Your task to perform on an android device: Open calendar and show me the fourth week of next month Image 0: 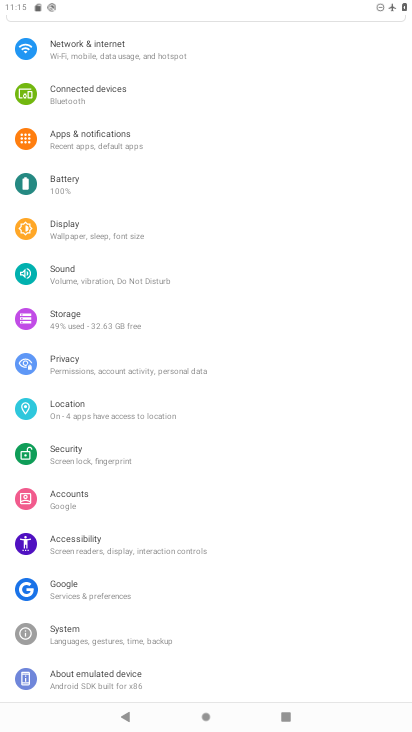
Step 0: drag from (212, 178) to (205, 496)
Your task to perform on an android device: Open calendar and show me the fourth week of next month Image 1: 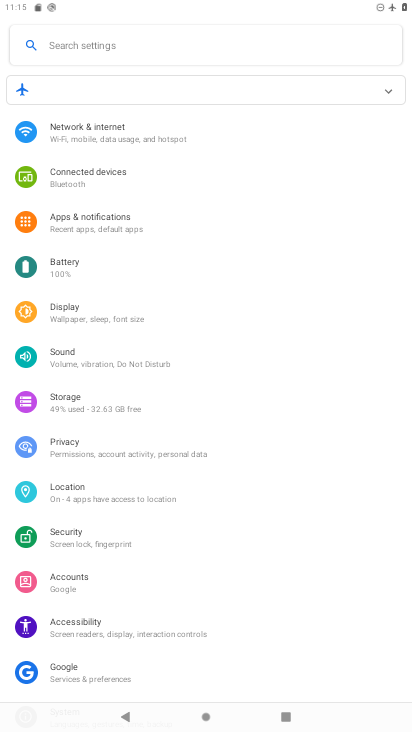
Step 1: press home button
Your task to perform on an android device: Open calendar and show me the fourth week of next month Image 2: 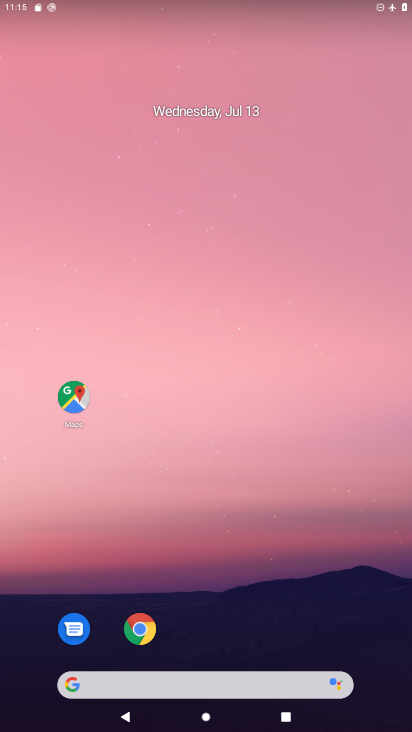
Step 2: drag from (380, 682) to (360, 99)
Your task to perform on an android device: Open calendar and show me the fourth week of next month Image 3: 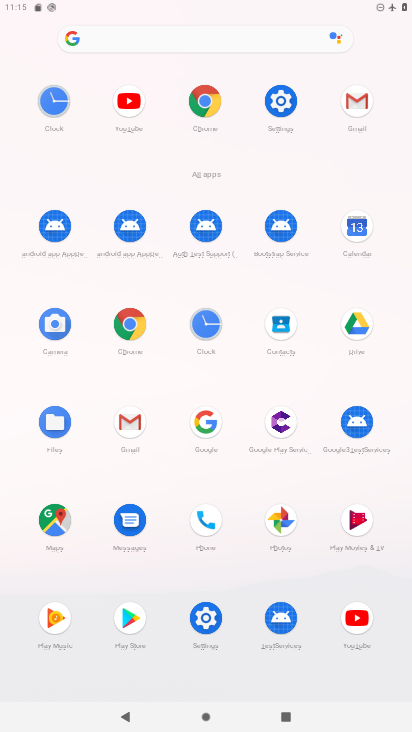
Step 3: click (350, 237)
Your task to perform on an android device: Open calendar and show me the fourth week of next month Image 4: 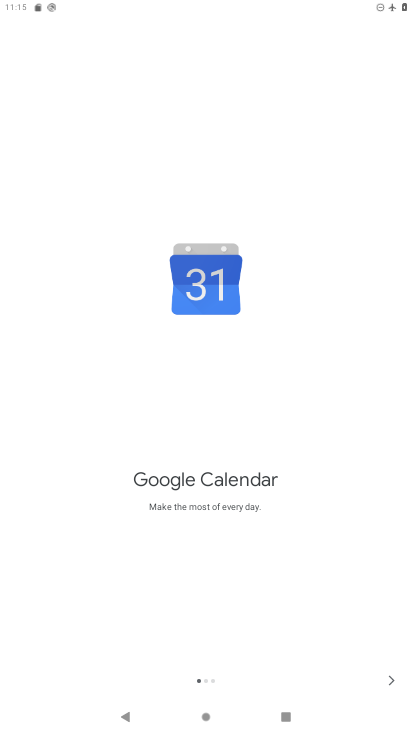
Step 4: click (393, 668)
Your task to perform on an android device: Open calendar and show me the fourth week of next month Image 5: 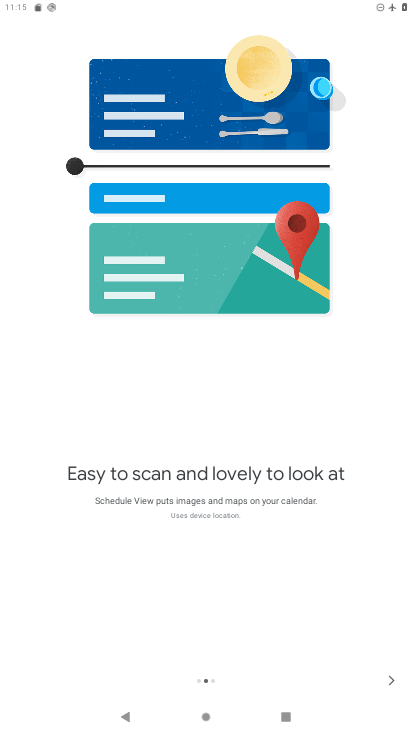
Step 5: click (393, 670)
Your task to perform on an android device: Open calendar and show me the fourth week of next month Image 6: 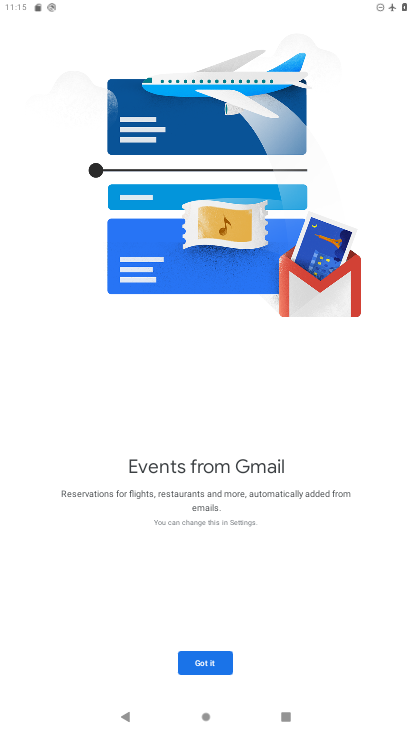
Step 6: click (196, 660)
Your task to perform on an android device: Open calendar and show me the fourth week of next month Image 7: 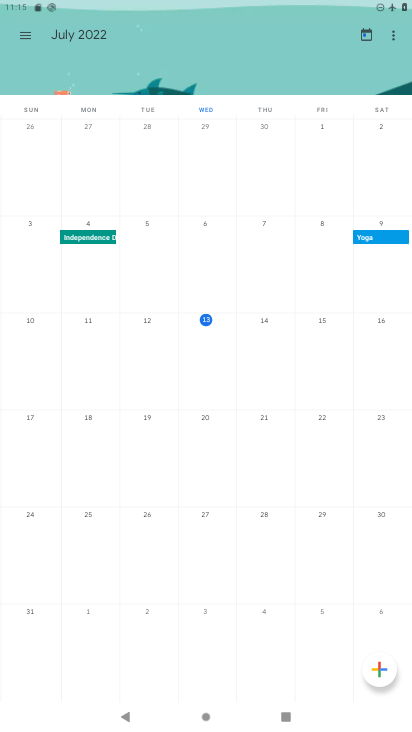
Step 7: drag from (396, 191) to (110, 164)
Your task to perform on an android device: Open calendar and show me the fourth week of next month Image 8: 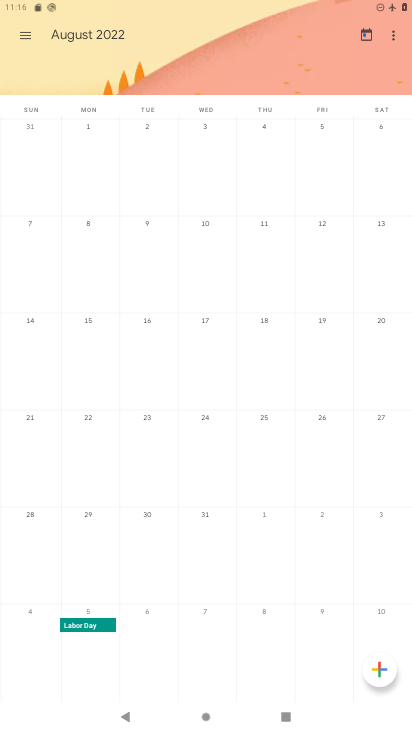
Step 8: click (203, 417)
Your task to perform on an android device: Open calendar and show me the fourth week of next month Image 9: 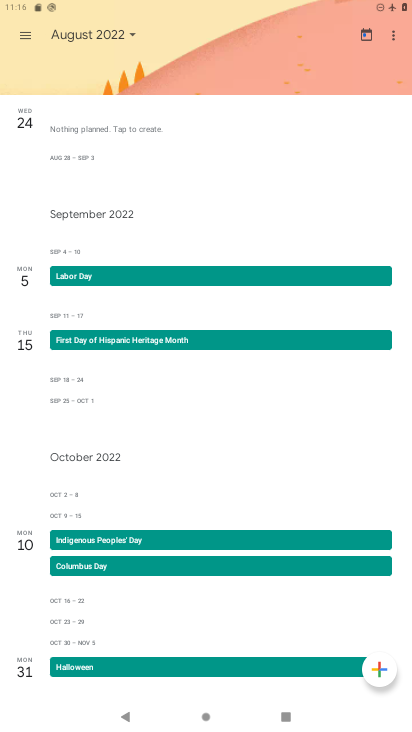
Step 9: task complete